Your task to perform on an android device: Open the Play Movies app and select the watchlist tab. Image 0: 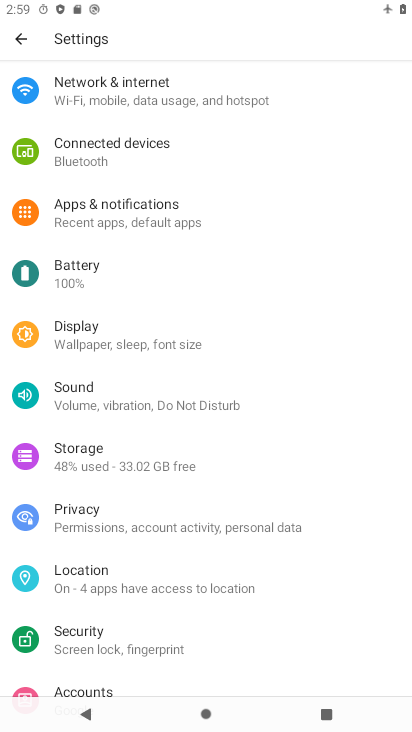
Step 0: press home button
Your task to perform on an android device: Open the Play Movies app and select the watchlist tab. Image 1: 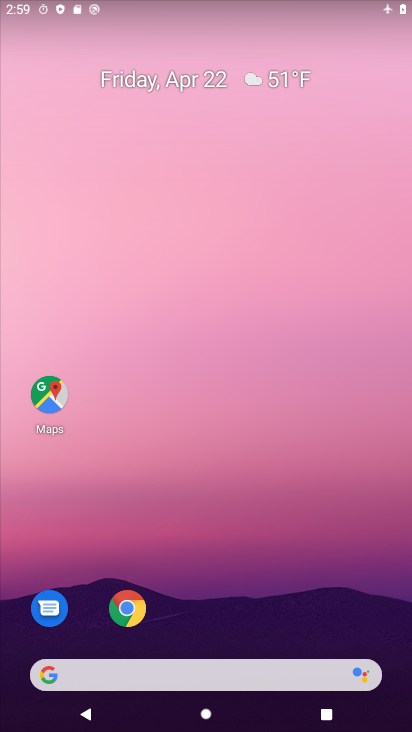
Step 1: drag from (281, 603) to (251, 147)
Your task to perform on an android device: Open the Play Movies app and select the watchlist tab. Image 2: 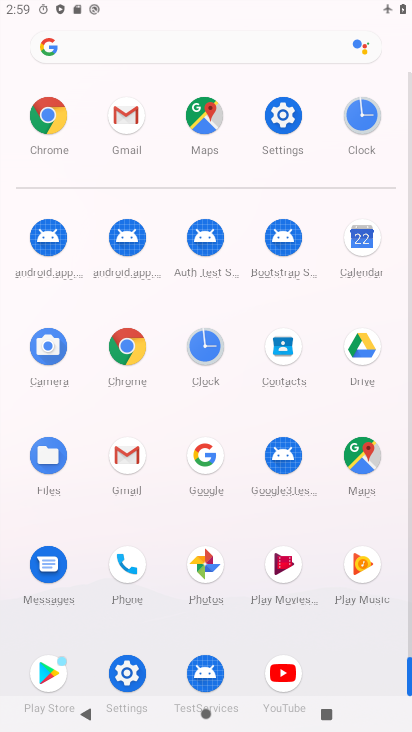
Step 2: click (278, 575)
Your task to perform on an android device: Open the Play Movies app and select the watchlist tab. Image 3: 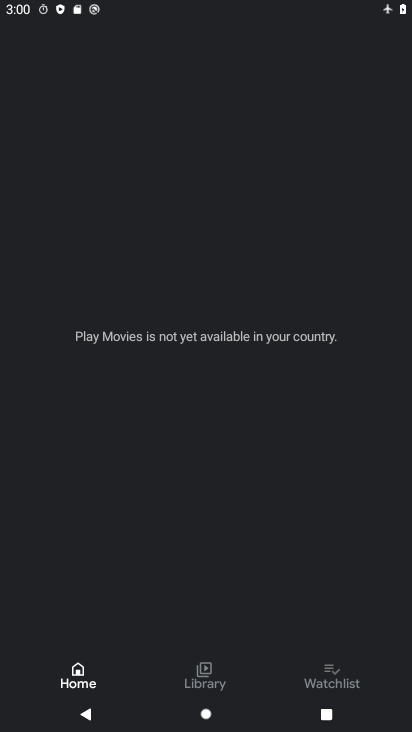
Step 3: click (331, 680)
Your task to perform on an android device: Open the Play Movies app and select the watchlist tab. Image 4: 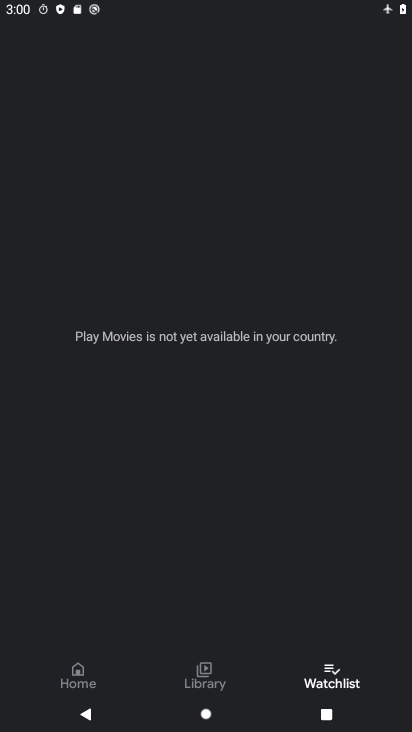
Step 4: task complete